Your task to perform on an android device: Go to accessibility settings Image 0: 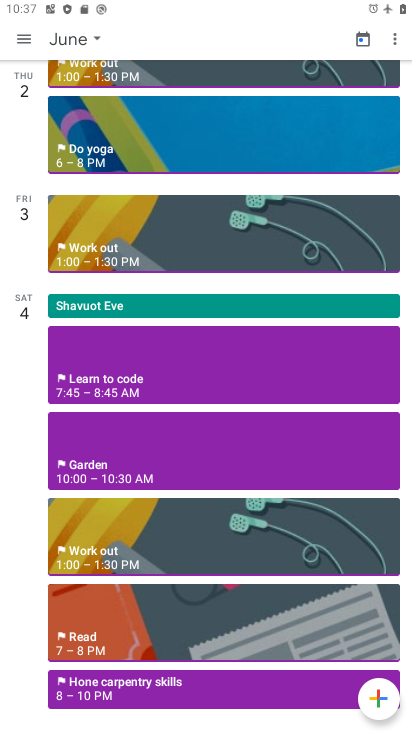
Step 0: press home button
Your task to perform on an android device: Go to accessibility settings Image 1: 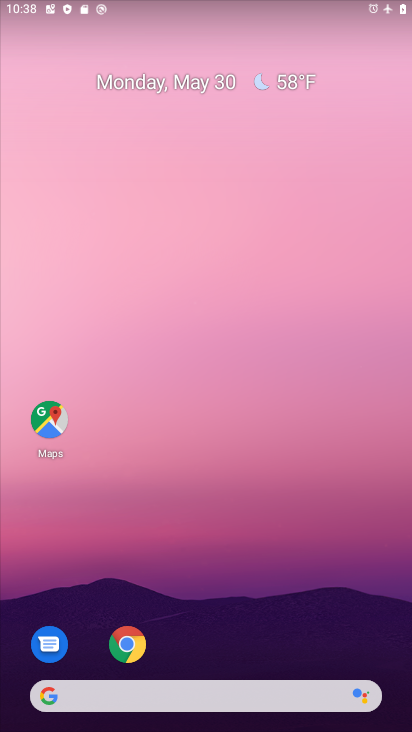
Step 1: drag from (368, 651) to (334, 54)
Your task to perform on an android device: Go to accessibility settings Image 2: 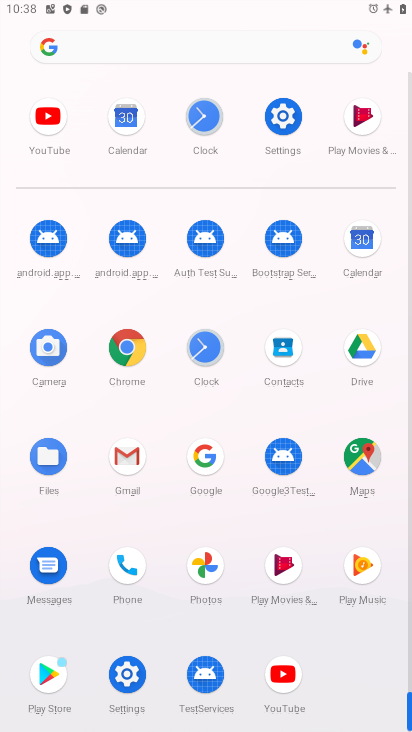
Step 2: click (128, 672)
Your task to perform on an android device: Go to accessibility settings Image 3: 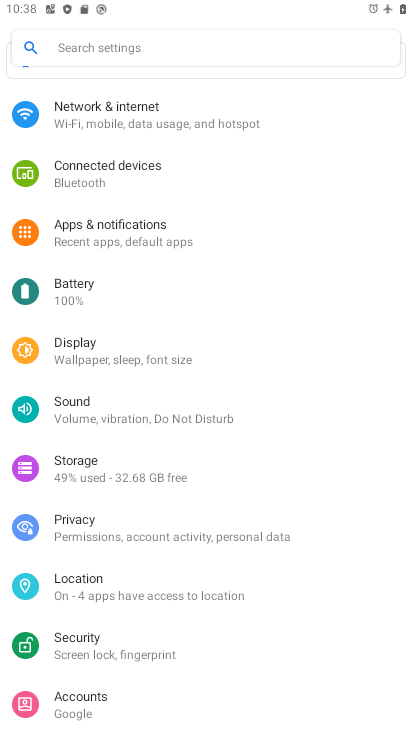
Step 3: drag from (259, 660) to (290, 221)
Your task to perform on an android device: Go to accessibility settings Image 4: 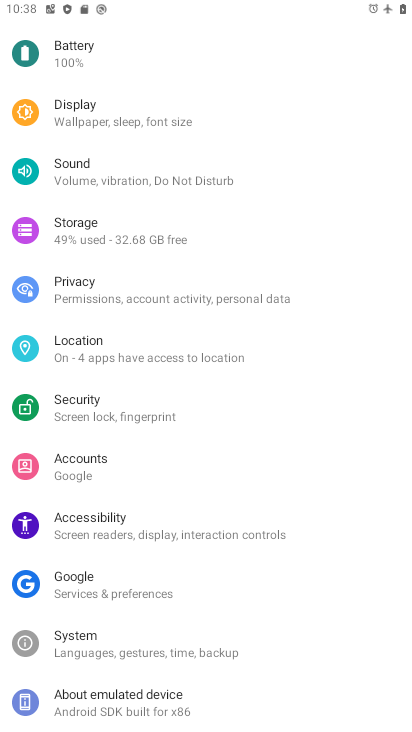
Step 4: click (92, 512)
Your task to perform on an android device: Go to accessibility settings Image 5: 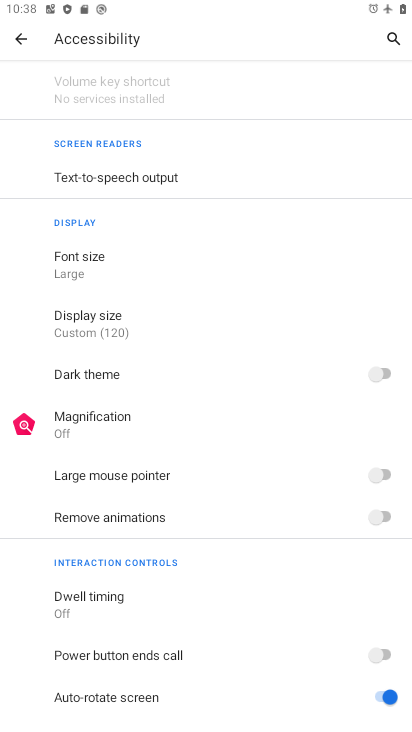
Step 5: task complete